Your task to perform on an android device: Open calendar and show me the fourth week of next month Image 0: 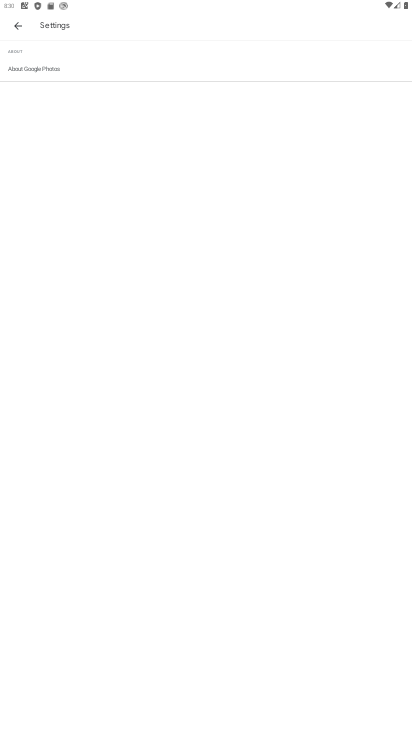
Step 0: press home button
Your task to perform on an android device: Open calendar and show me the fourth week of next month Image 1: 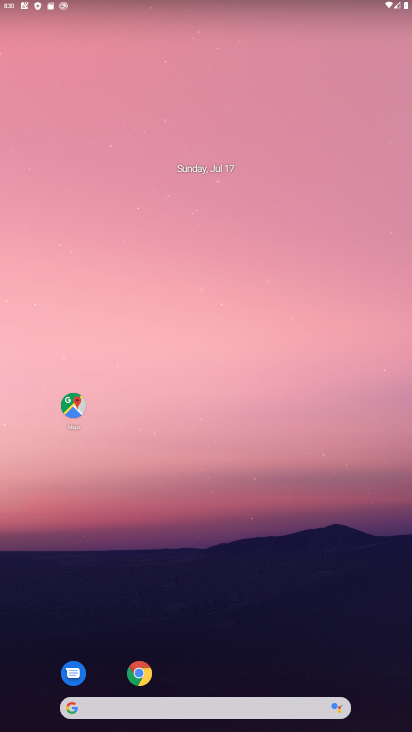
Step 1: drag from (224, 448) to (205, 132)
Your task to perform on an android device: Open calendar and show me the fourth week of next month Image 2: 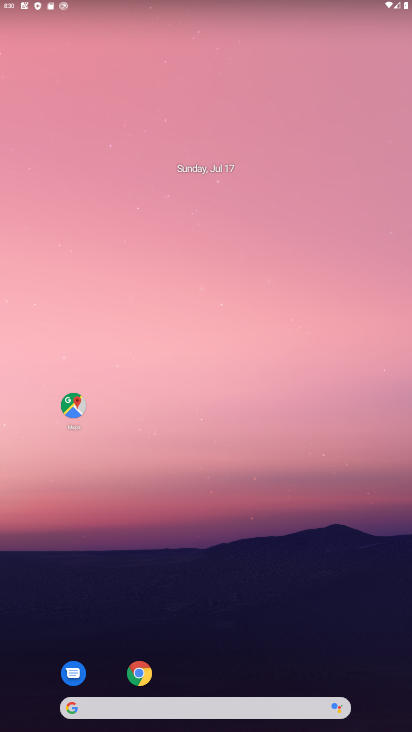
Step 2: drag from (295, 547) to (292, 78)
Your task to perform on an android device: Open calendar and show me the fourth week of next month Image 3: 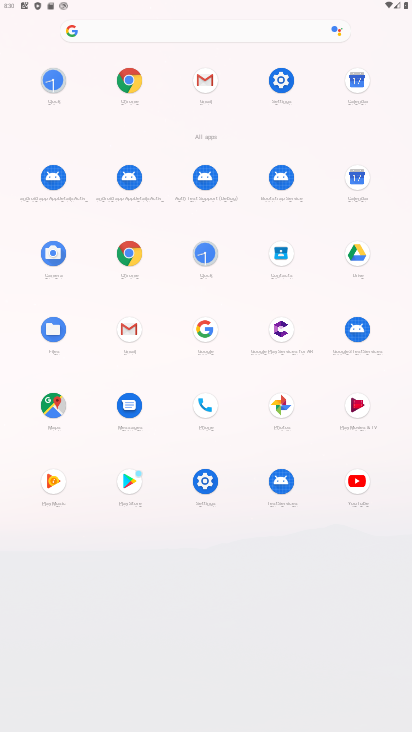
Step 3: click (359, 88)
Your task to perform on an android device: Open calendar and show me the fourth week of next month Image 4: 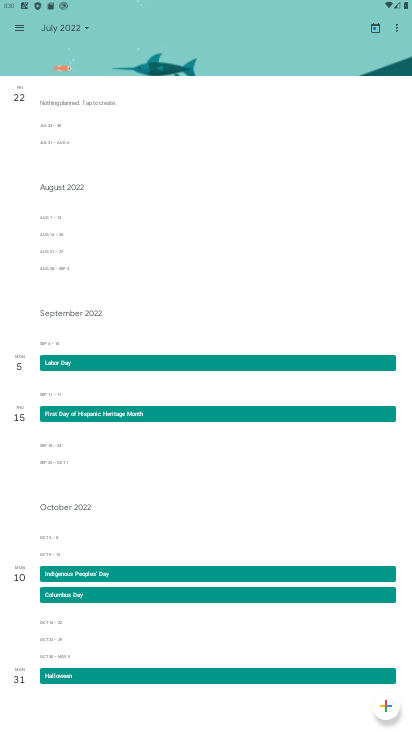
Step 4: click (45, 29)
Your task to perform on an android device: Open calendar and show me the fourth week of next month Image 5: 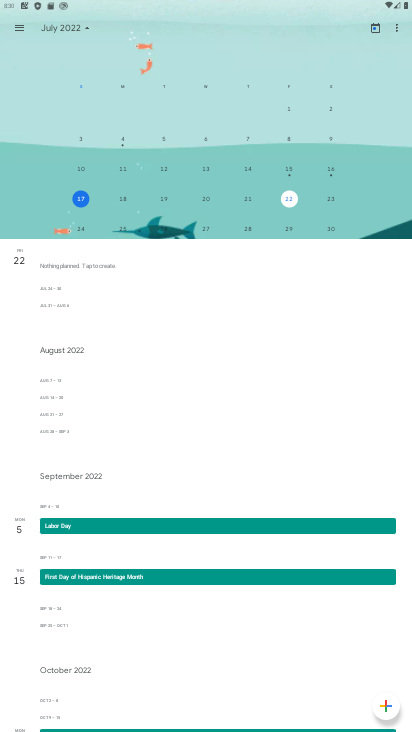
Step 5: drag from (314, 147) to (28, 139)
Your task to perform on an android device: Open calendar and show me the fourth week of next month Image 6: 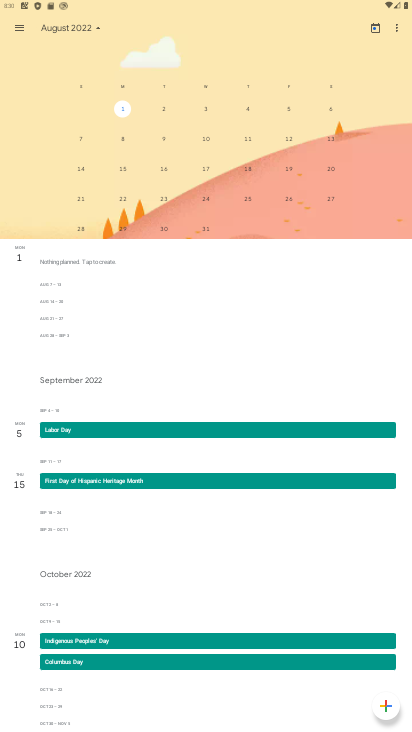
Step 6: click (166, 196)
Your task to perform on an android device: Open calendar and show me the fourth week of next month Image 7: 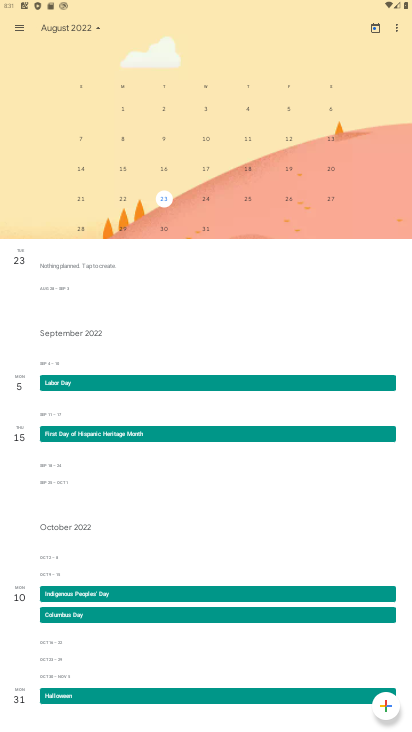
Step 7: click (252, 193)
Your task to perform on an android device: Open calendar and show me the fourth week of next month Image 8: 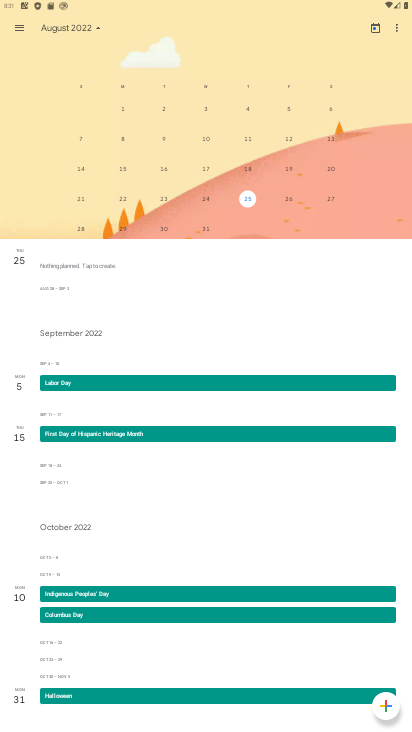
Step 8: click (25, 25)
Your task to perform on an android device: Open calendar and show me the fourth week of next month Image 9: 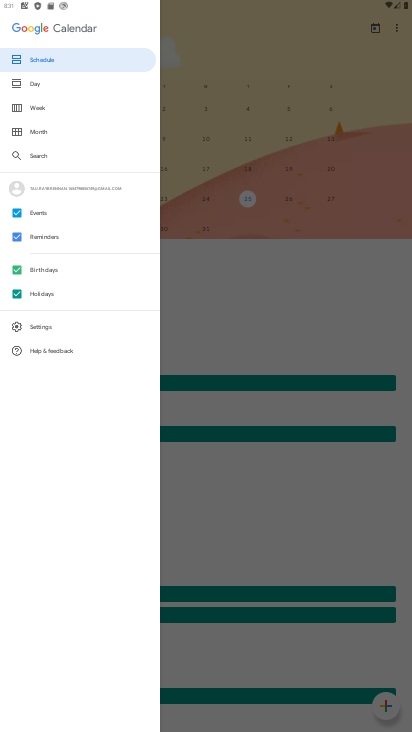
Step 9: click (39, 110)
Your task to perform on an android device: Open calendar and show me the fourth week of next month Image 10: 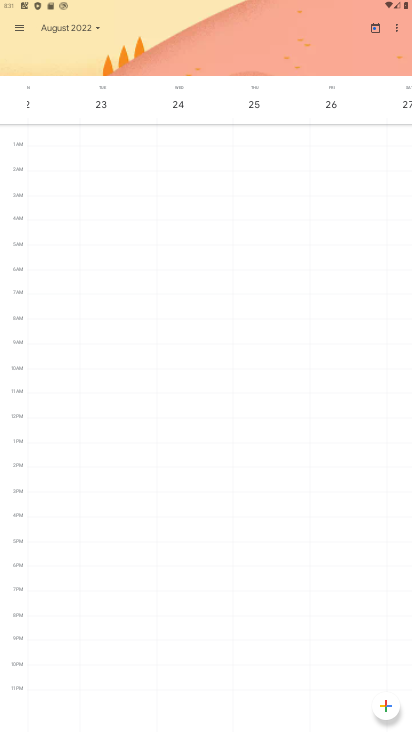
Step 10: task complete